Your task to perform on an android device: Open calendar and show me the fourth week of next month Image 0: 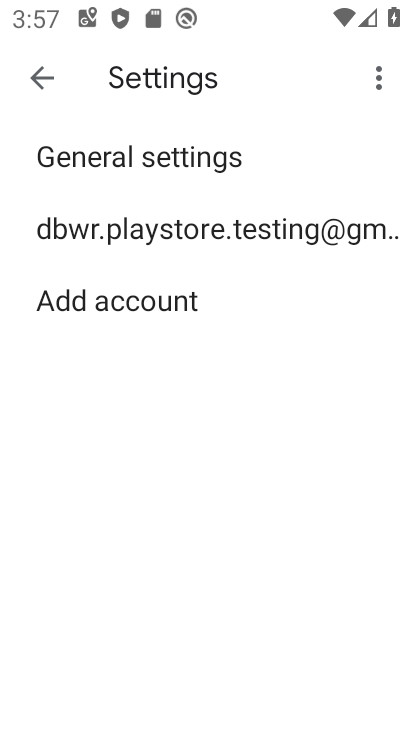
Step 0: press home button
Your task to perform on an android device: Open calendar and show me the fourth week of next month Image 1: 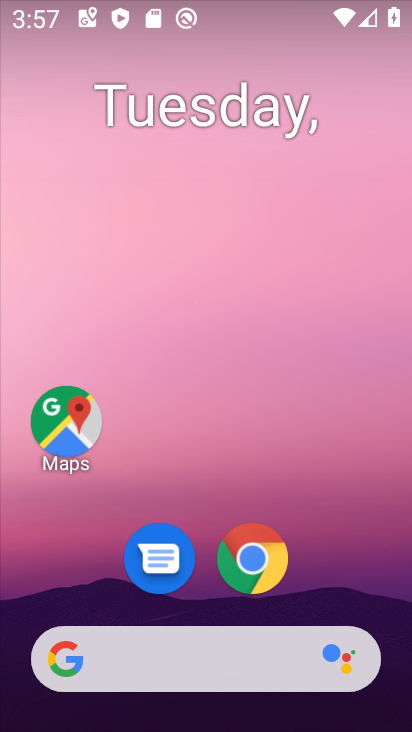
Step 1: drag from (91, 603) to (193, 81)
Your task to perform on an android device: Open calendar and show me the fourth week of next month Image 2: 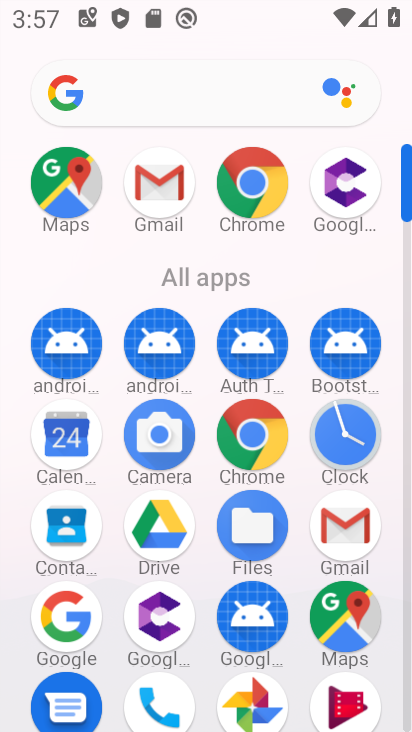
Step 2: click (59, 450)
Your task to perform on an android device: Open calendar and show me the fourth week of next month Image 3: 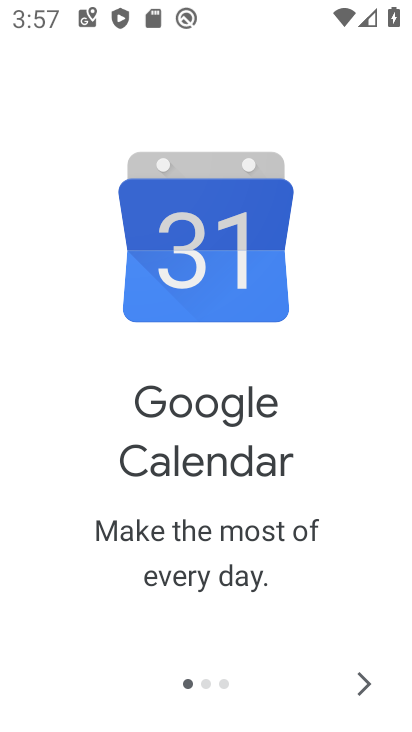
Step 3: click (372, 692)
Your task to perform on an android device: Open calendar and show me the fourth week of next month Image 4: 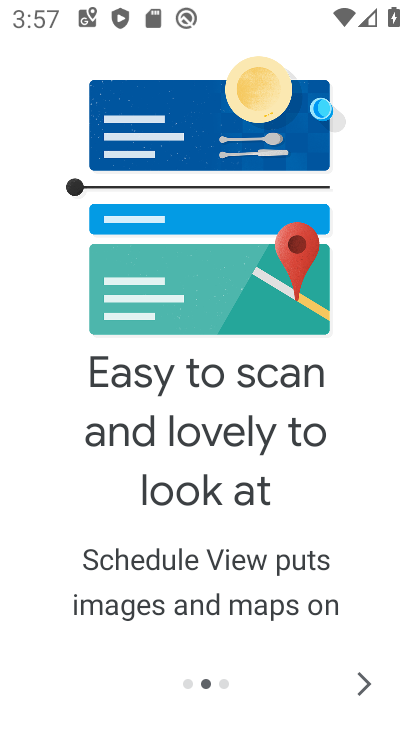
Step 4: click (372, 691)
Your task to perform on an android device: Open calendar and show me the fourth week of next month Image 5: 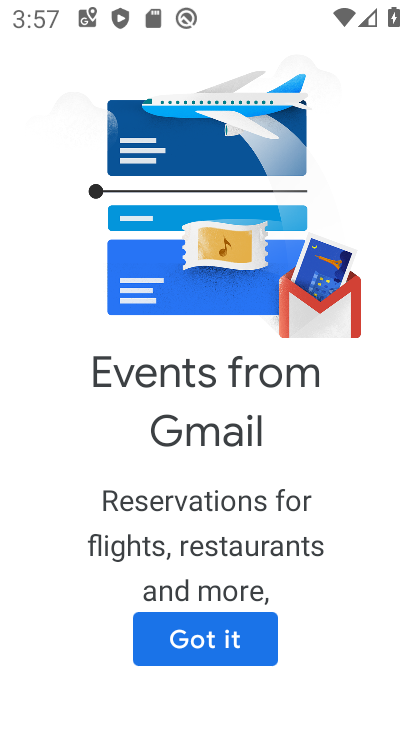
Step 5: click (239, 631)
Your task to perform on an android device: Open calendar and show me the fourth week of next month Image 6: 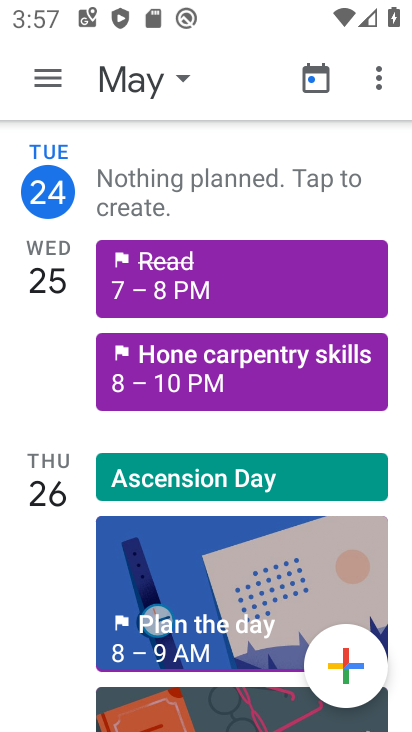
Step 6: click (138, 119)
Your task to perform on an android device: Open calendar and show me the fourth week of next month Image 7: 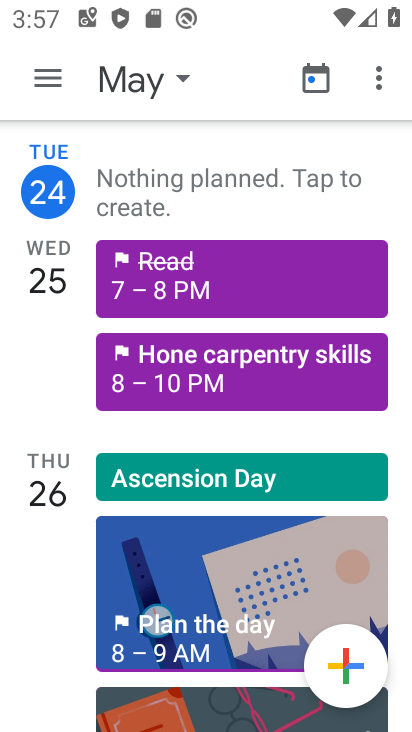
Step 7: click (132, 86)
Your task to perform on an android device: Open calendar and show me the fourth week of next month Image 8: 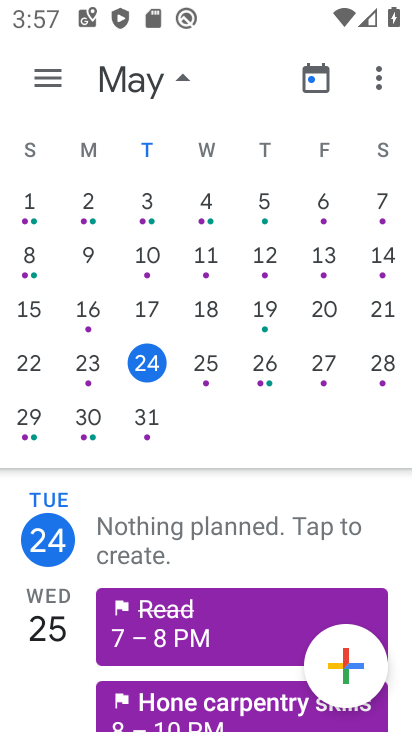
Step 8: drag from (366, 374) to (5, 357)
Your task to perform on an android device: Open calendar and show me the fourth week of next month Image 9: 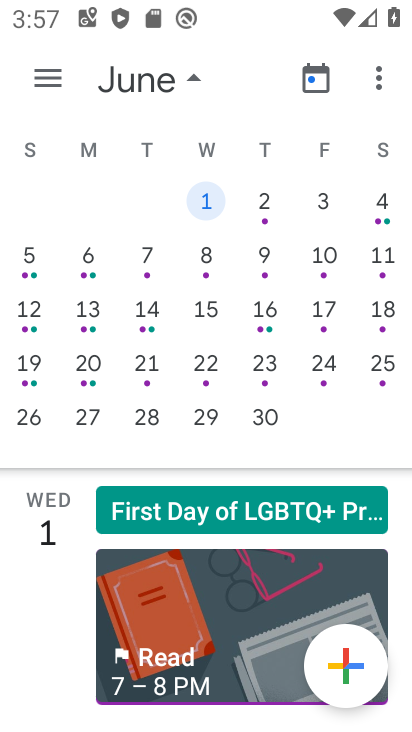
Step 9: click (31, 414)
Your task to perform on an android device: Open calendar and show me the fourth week of next month Image 10: 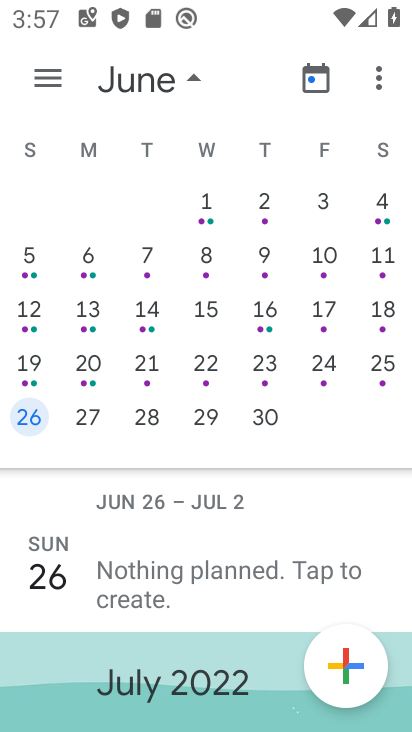
Step 10: click (58, 81)
Your task to perform on an android device: Open calendar and show me the fourth week of next month Image 11: 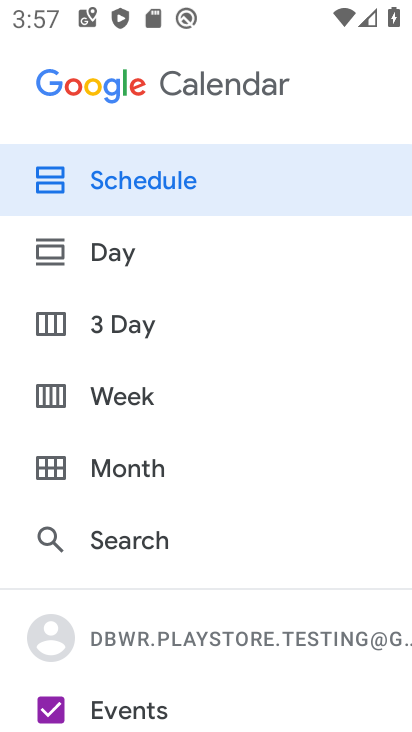
Step 11: click (156, 399)
Your task to perform on an android device: Open calendar and show me the fourth week of next month Image 12: 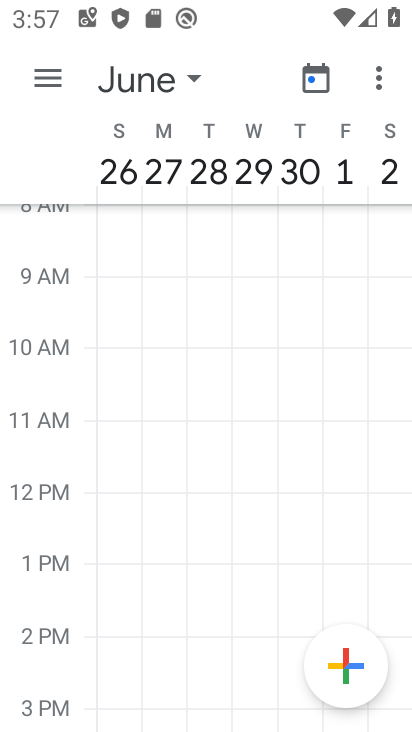
Step 12: task complete